Your task to perform on an android device: delete the emails in spam in the gmail app Image 0: 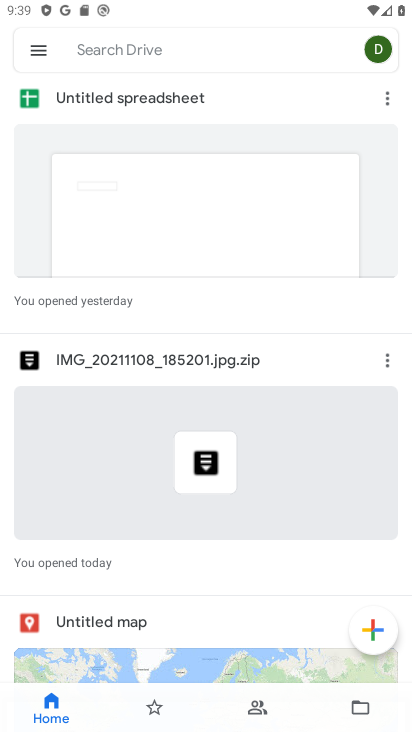
Step 0: press home button
Your task to perform on an android device: delete the emails in spam in the gmail app Image 1: 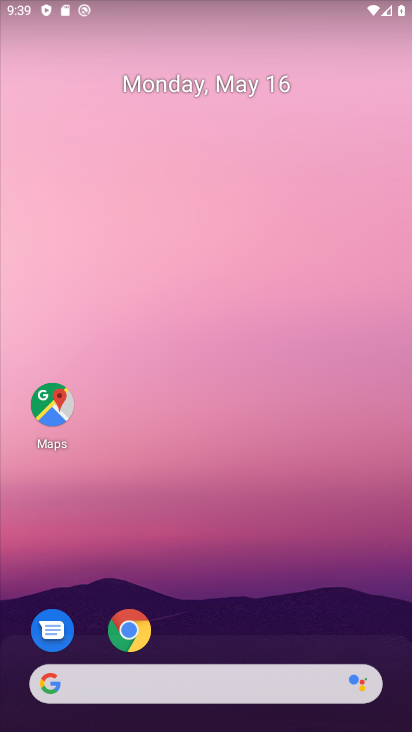
Step 1: drag from (232, 508) to (212, 49)
Your task to perform on an android device: delete the emails in spam in the gmail app Image 2: 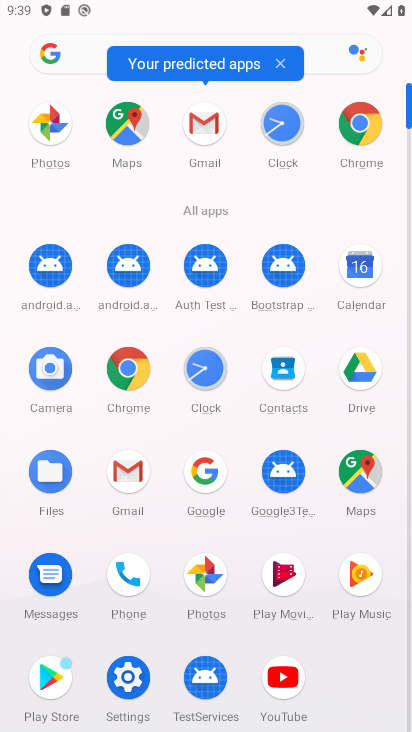
Step 2: click (201, 126)
Your task to perform on an android device: delete the emails in spam in the gmail app Image 3: 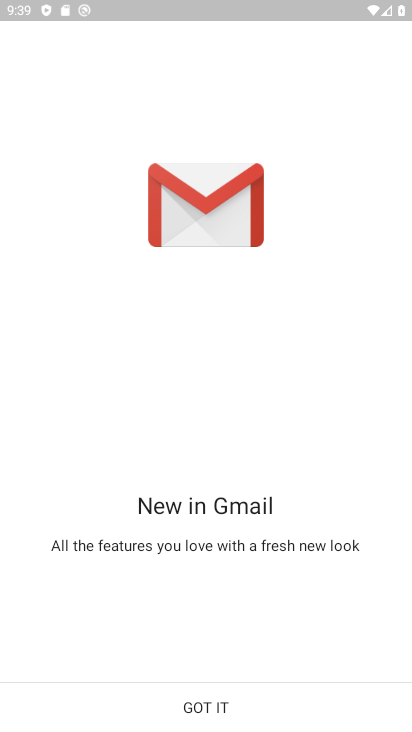
Step 3: click (226, 704)
Your task to perform on an android device: delete the emails in spam in the gmail app Image 4: 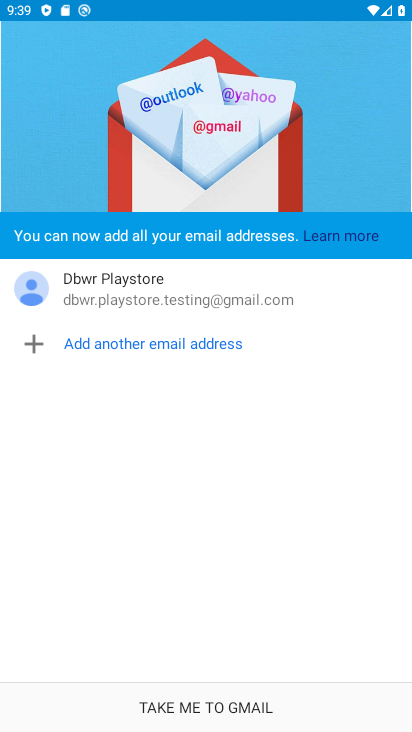
Step 4: click (226, 701)
Your task to perform on an android device: delete the emails in spam in the gmail app Image 5: 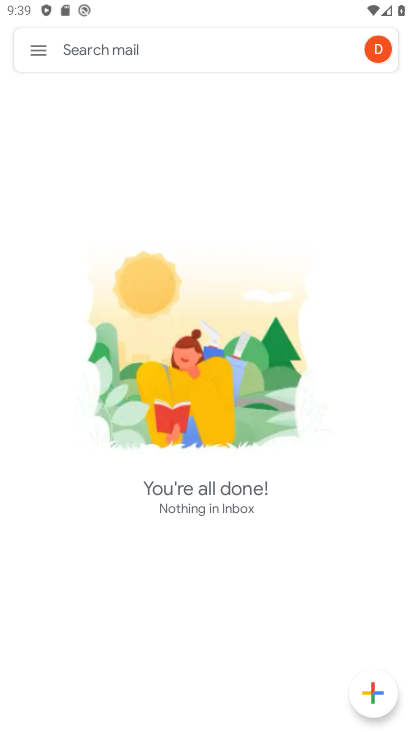
Step 5: click (44, 51)
Your task to perform on an android device: delete the emails in spam in the gmail app Image 6: 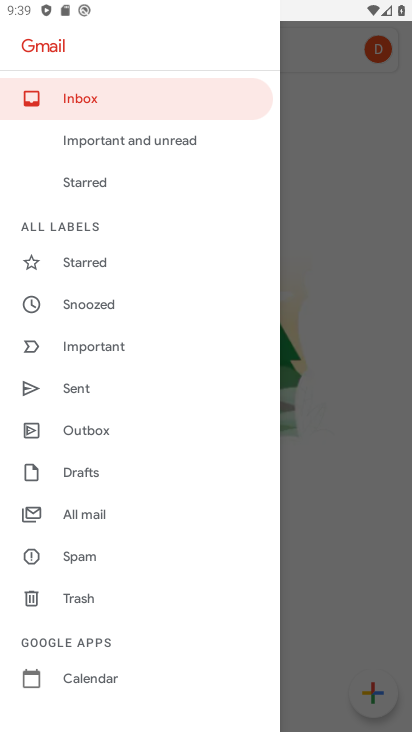
Step 6: click (81, 549)
Your task to perform on an android device: delete the emails in spam in the gmail app Image 7: 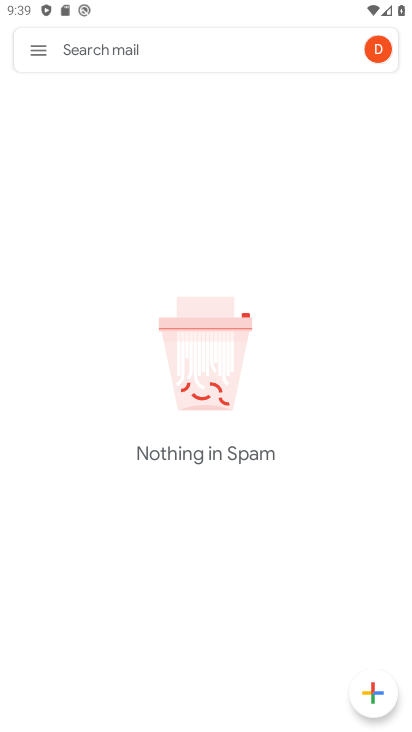
Step 7: task complete